Your task to perform on an android device: change your default location settings in chrome Image 0: 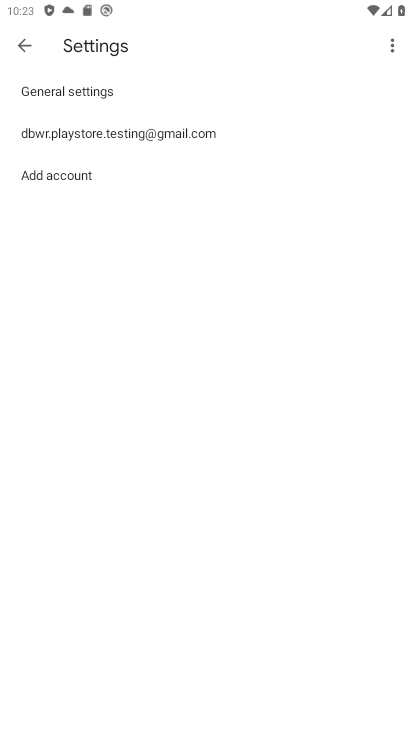
Step 0: press home button
Your task to perform on an android device: change your default location settings in chrome Image 1: 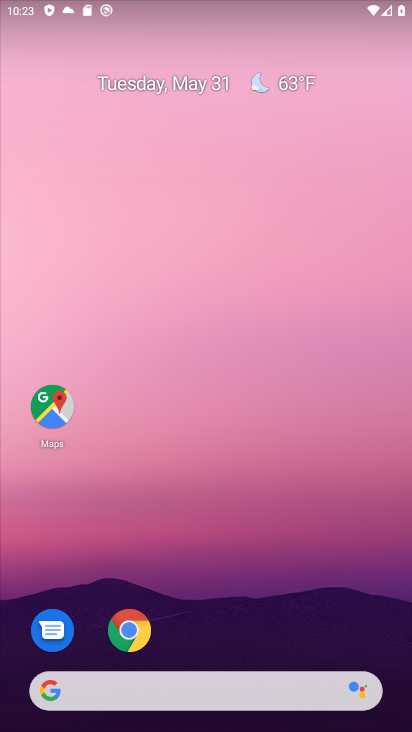
Step 1: click (127, 643)
Your task to perform on an android device: change your default location settings in chrome Image 2: 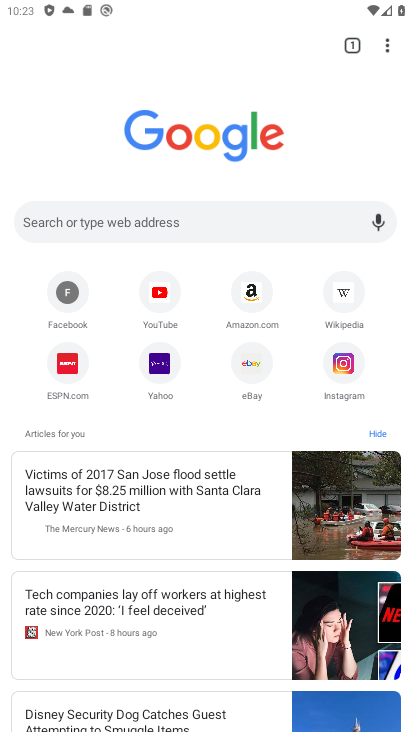
Step 2: click (388, 45)
Your task to perform on an android device: change your default location settings in chrome Image 3: 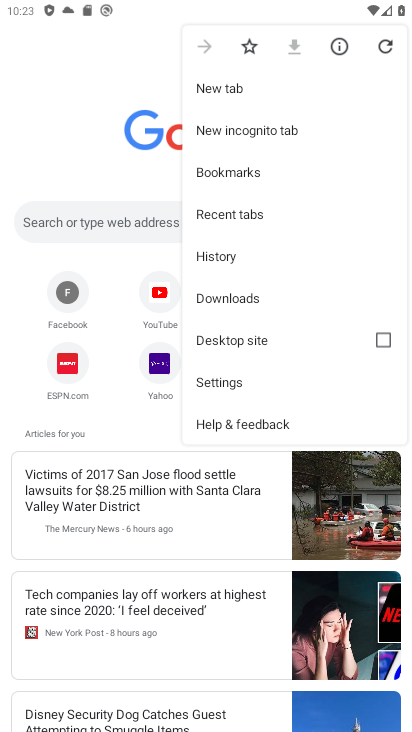
Step 3: click (232, 383)
Your task to perform on an android device: change your default location settings in chrome Image 4: 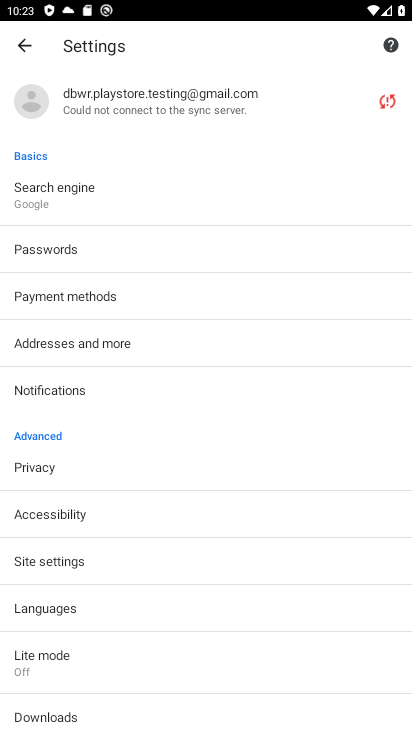
Step 4: drag from (96, 655) to (89, 475)
Your task to perform on an android device: change your default location settings in chrome Image 5: 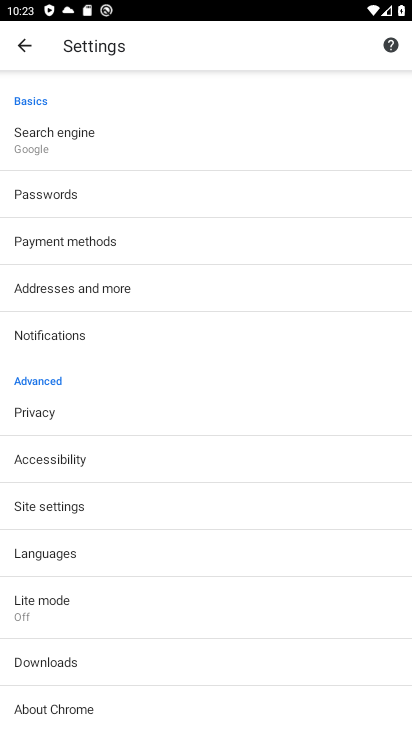
Step 5: click (69, 503)
Your task to perform on an android device: change your default location settings in chrome Image 6: 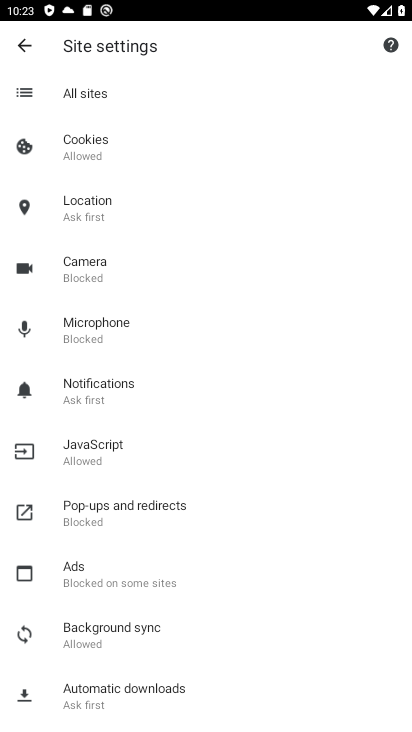
Step 6: click (96, 208)
Your task to perform on an android device: change your default location settings in chrome Image 7: 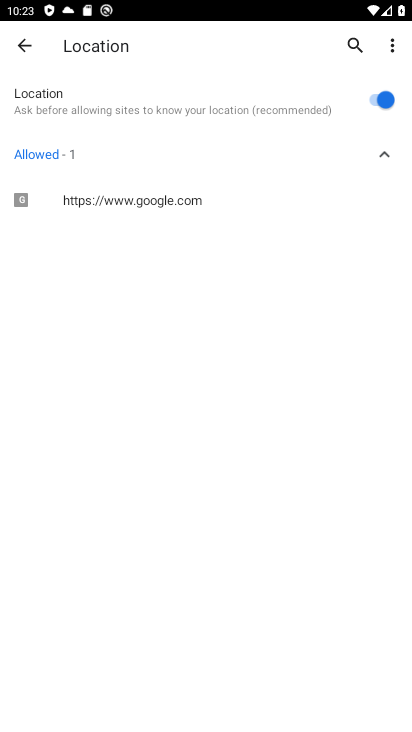
Step 7: click (381, 102)
Your task to perform on an android device: change your default location settings in chrome Image 8: 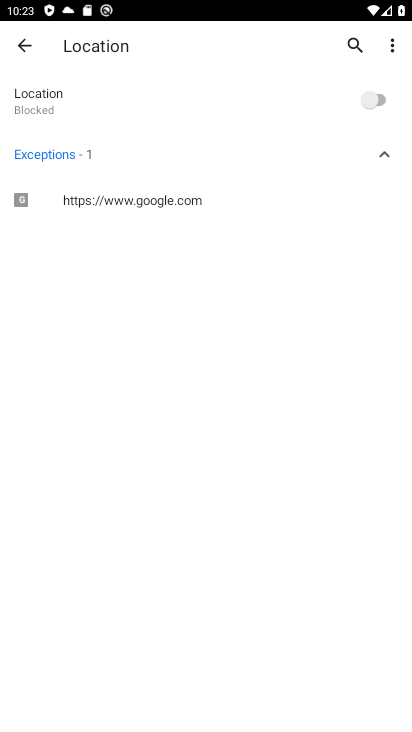
Step 8: task complete